Your task to perform on an android device: What's the weather going to be tomorrow? Image 0: 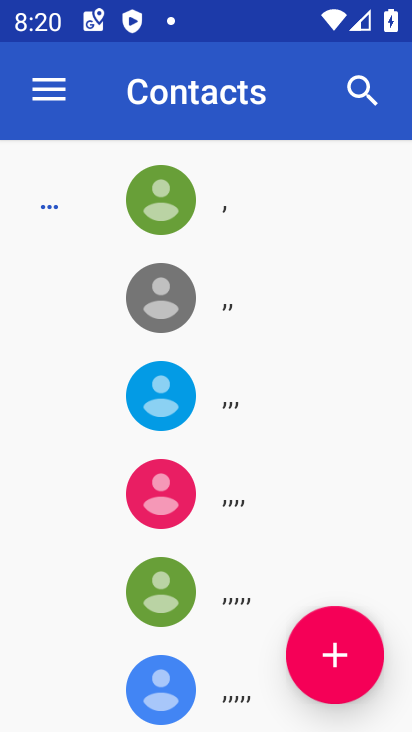
Step 0: press home button
Your task to perform on an android device: What's the weather going to be tomorrow? Image 1: 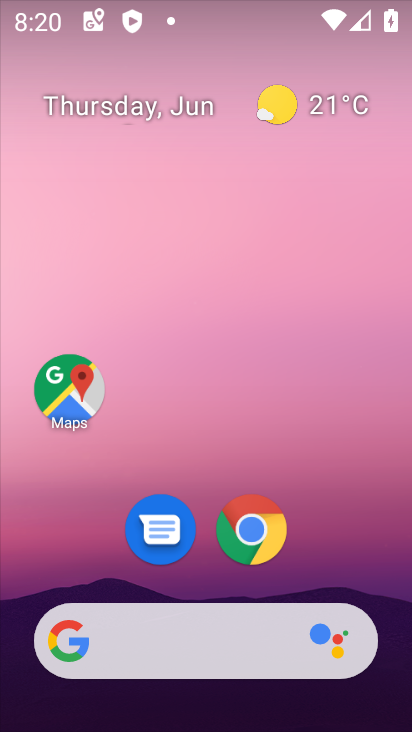
Step 1: click (207, 625)
Your task to perform on an android device: What's the weather going to be tomorrow? Image 2: 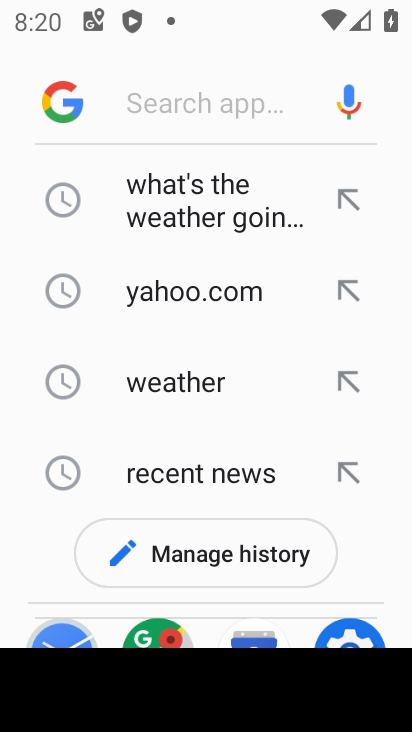
Step 2: click (155, 381)
Your task to perform on an android device: What's the weather going to be tomorrow? Image 3: 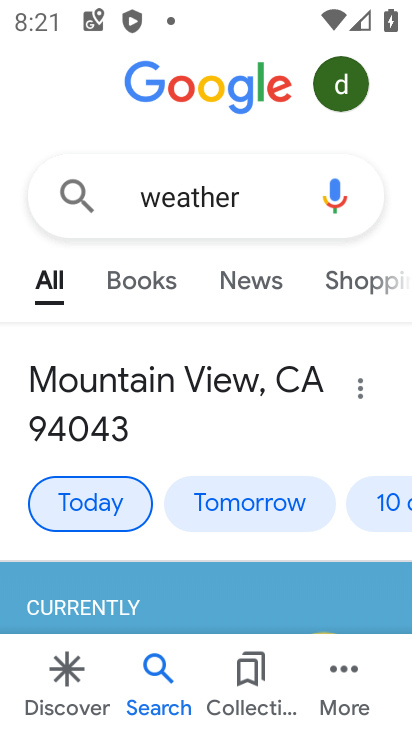
Step 3: click (245, 505)
Your task to perform on an android device: What's the weather going to be tomorrow? Image 4: 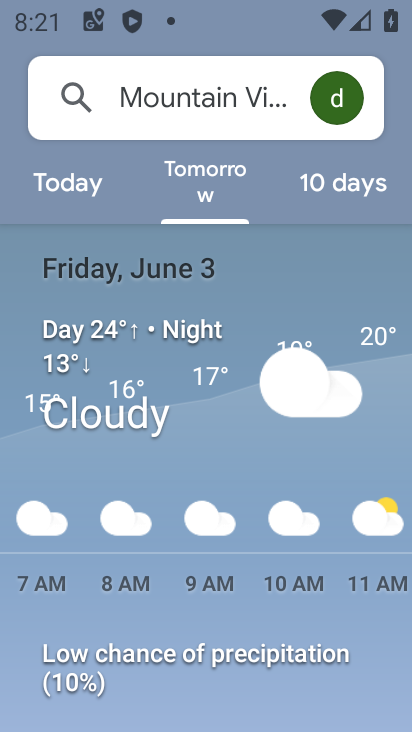
Step 4: task complete